Your task to perform on an android device: turn off picture-in-picture Image 0: 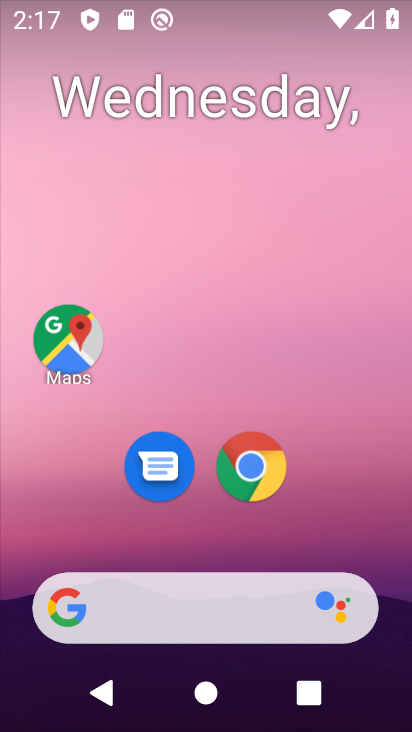
Step 0: drag from (404, 421) to (352, 16)
Your task to perform on an android device: turn off picture-in-picture Image 1: 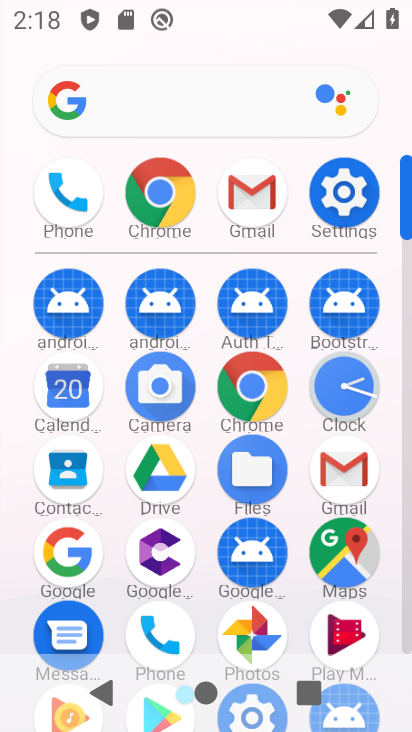
Step 1: drag from (6, 513) to (8, 119)
Your task to perform on an android device: turn off picture-in-picture Image 2: 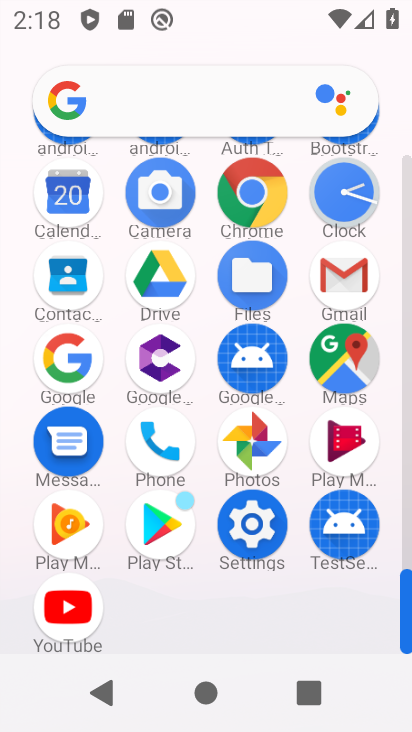
Step 2: click (248, 519)
Your task to perform on an android device: turn off picture-in-picture Image 3: 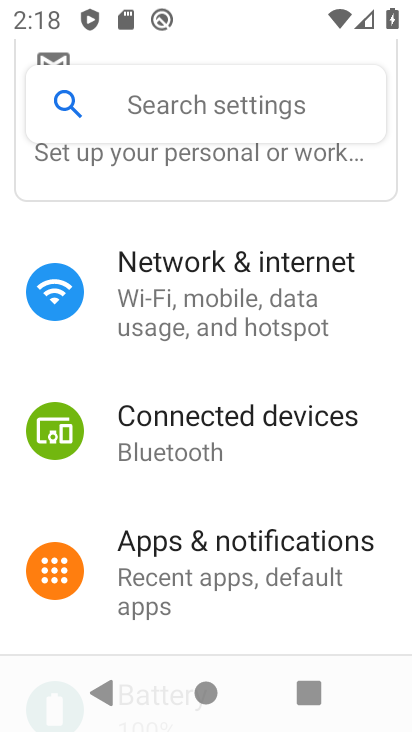
Step 3: click (258, 561)
Your task to perform on an android device: turn off picture-in-picture Image 4: 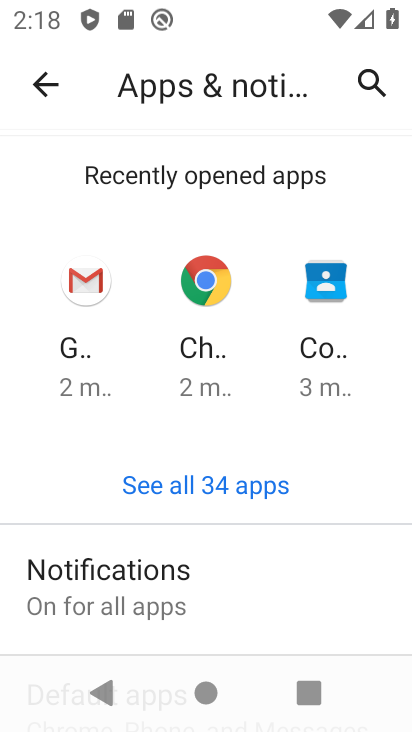
Step 4: drag from (395, 549) to (381, 70)
Your task to perform on an android device: turn off picture-in-picture Image 5: 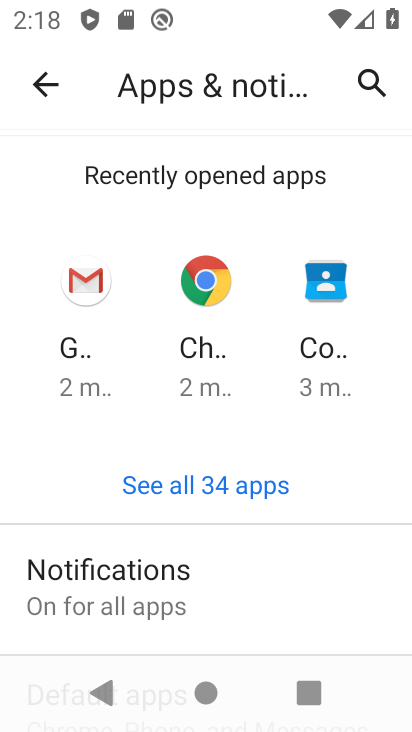
Step 5: drag from (384, 473) to (363, 110)
Your task to perform on an android device: turn off picture-in-picture Image 6: 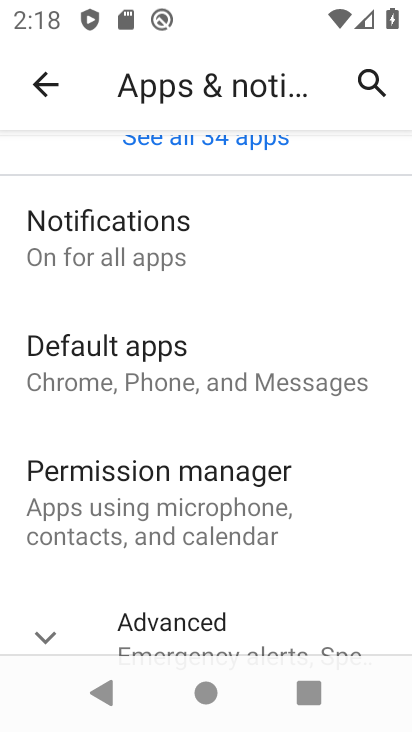
Step 6: click (48, 634)
Your task to perform on an android device: turn off picture-in-picture Image 7: 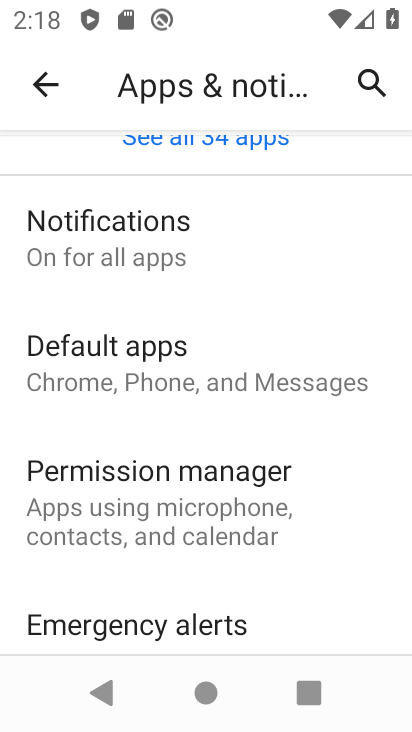
Step 7: drag from (355, 533) to (319, 96)
Your task to perform on an android device: turn off picture-in-picture Image 8: 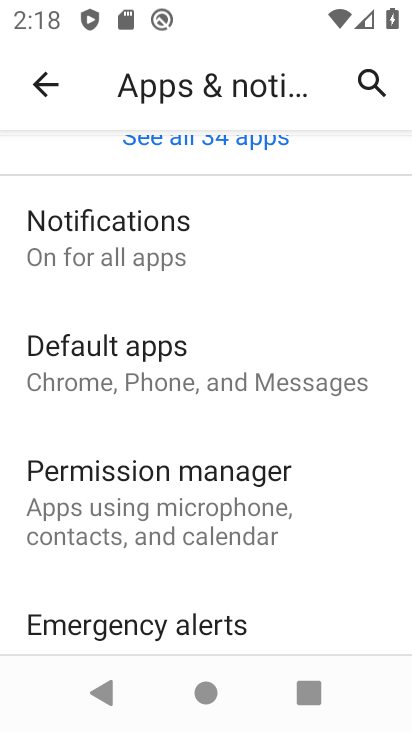
Step 8: drag from (378, 280) to (383, 46)
Your task to perform on an android device: turn off picture-in-picture Image 9: 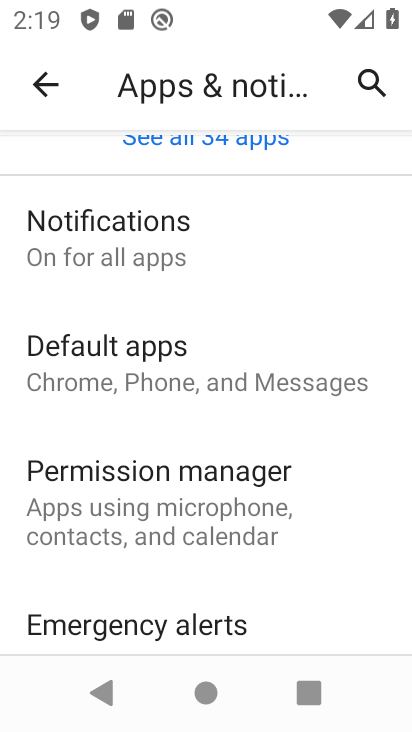
Step 9: drag from (342, 539) to (342, 182)
Your task to perform on an android device: turn off picture-in-picture Image 10: 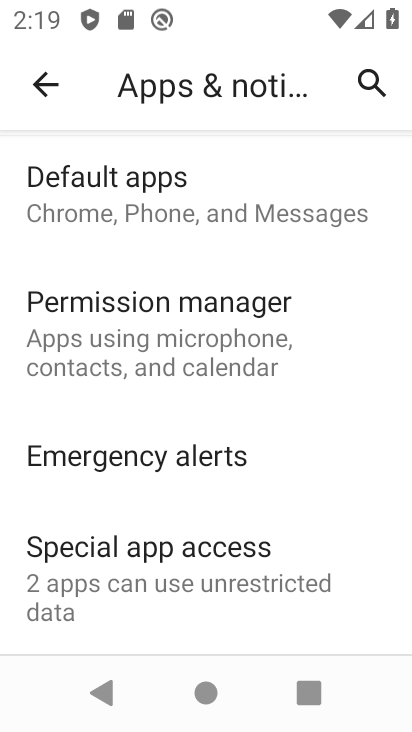
Step 10: click (241, 554)
Your task to perform on an android device: turn off picture-in-picture Image 11: 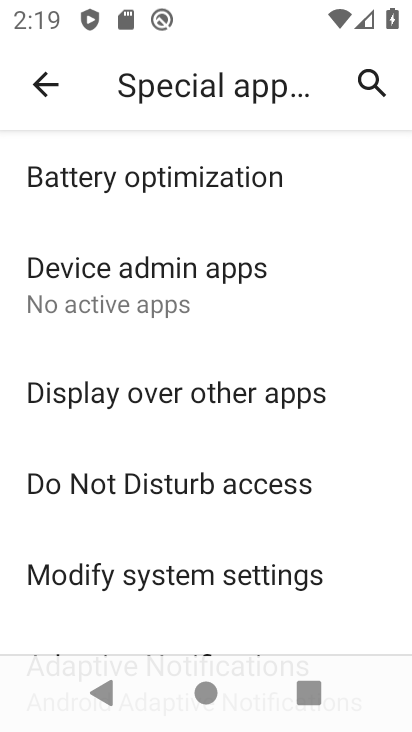
Step 11: drag from (266, 543) to (274, 229)
Your task to perform on an android device: turn off picture-in-picture Image 12: 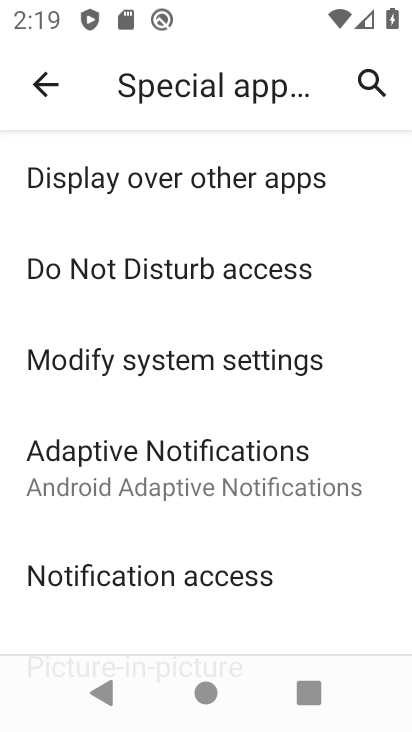
Step 12: drag from (270, 519) to (274, 181)
Your task to perform on an android device: turn off picture-in-picture Image 13: 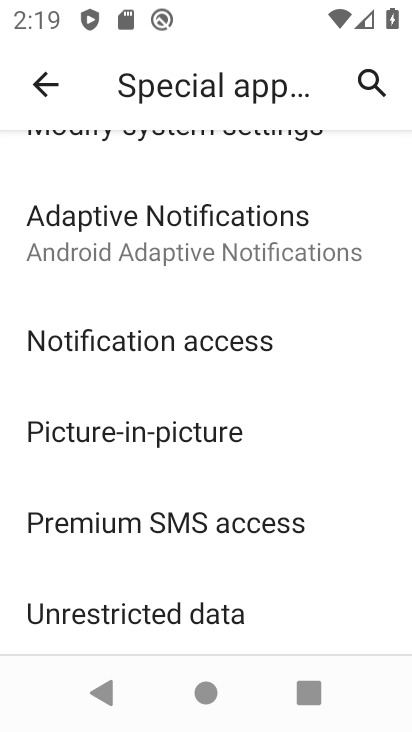
Step 13: click (187, 418)
Your task to perform on an android device: turn off picture-in-picture Image 14: 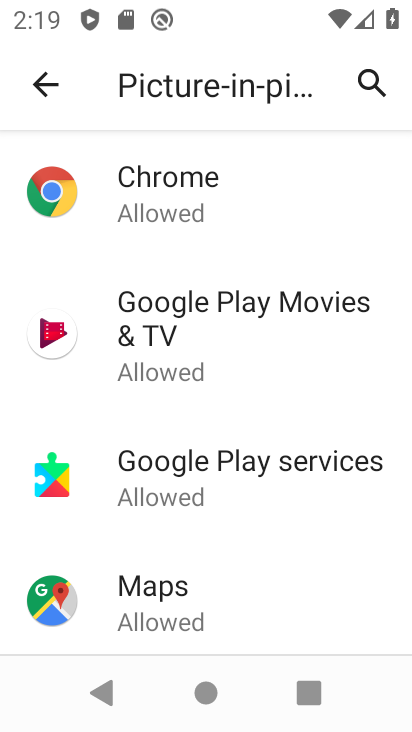
Step 14: click (205, 196)
Your task to perform on an android device: turn off picture-in-picture Image 15: 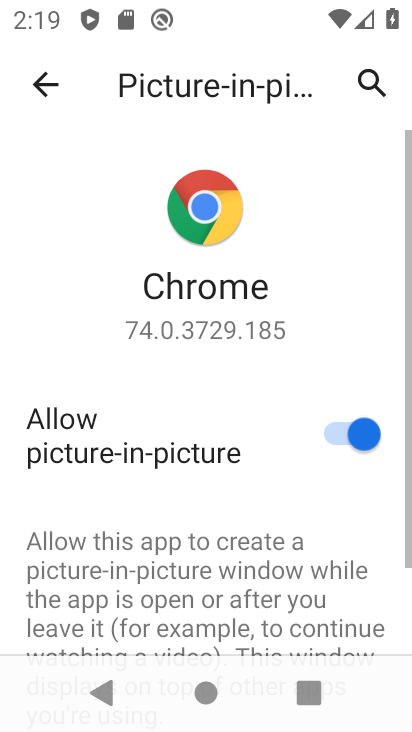
Step 15: click (334, 431)
Your task to perform on an android device: turn off picture-in-picture Image 16: 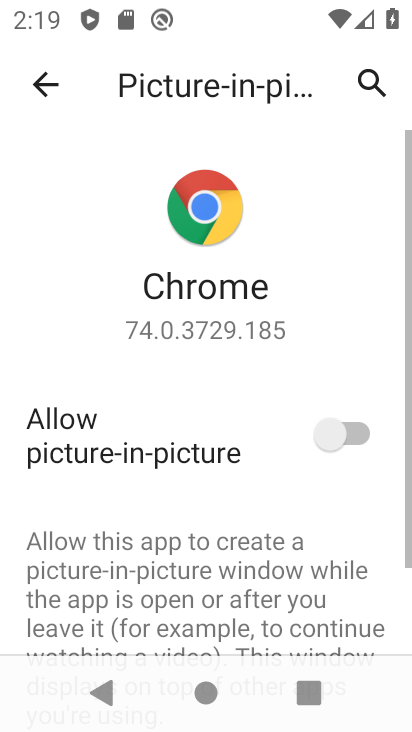
Step 16: click (26, 83)
Your task to perform on an android device: turn off picture-in-picture Image 17: 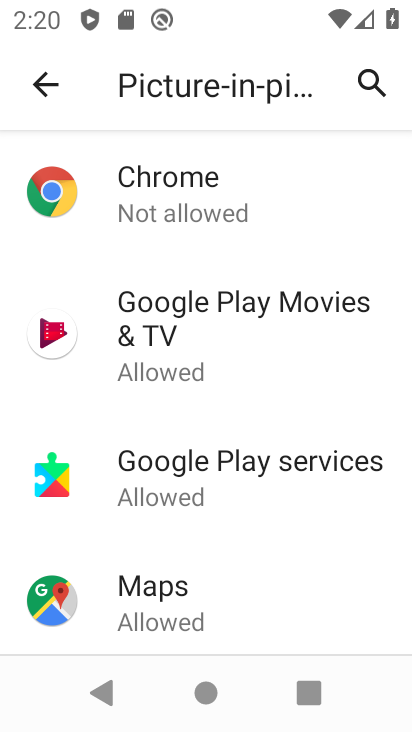
Step 17: drag from (242, 474) to (235, 242)
Your task to perform on an android device: turn off picture-in-picture Image 18: 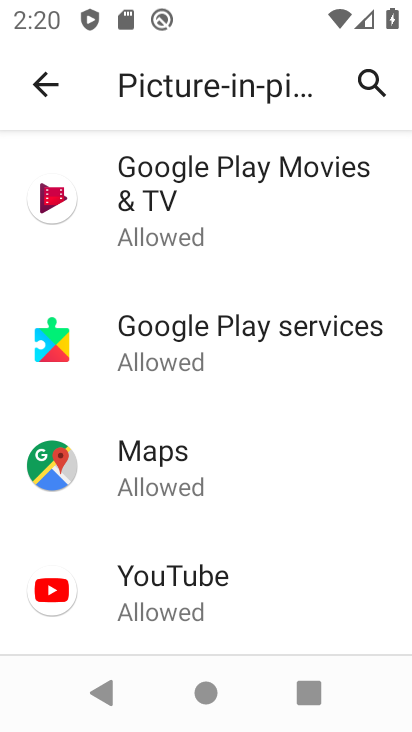
Step 18: click (221, 174)
Your task to perform on an android device: turn off picture-in-picture Image 19: 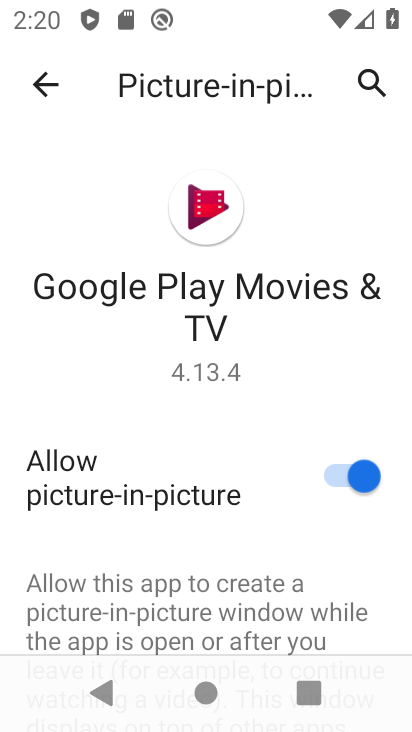
Step 19: click (337, 482)
Your task to perform on an android device: turn off picture-in-picture Image 20: 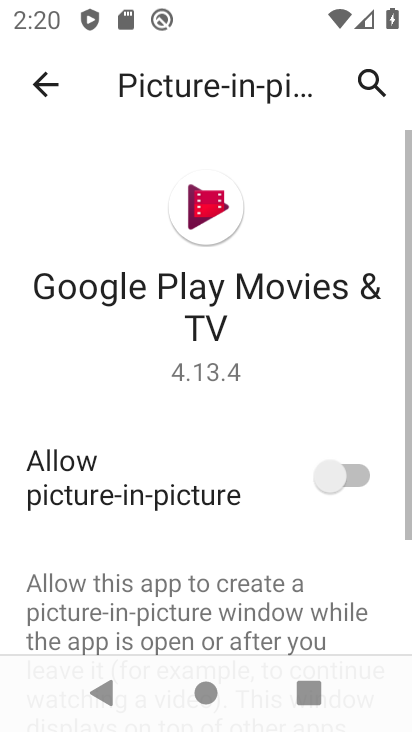
Step 20: click (60, 80)
Your task to perform on an android device: turn off picture-in-picture Image 21: 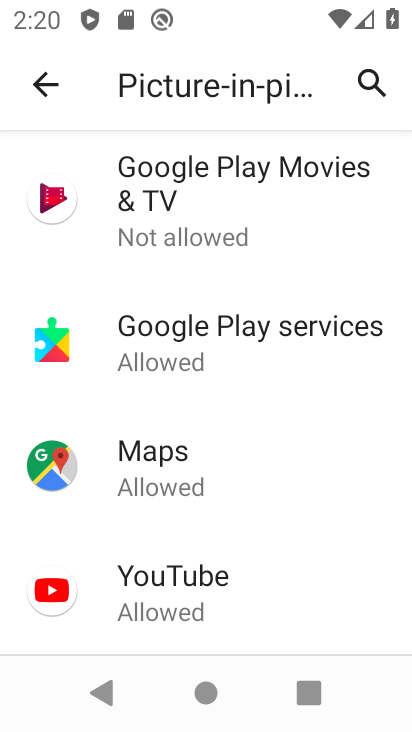
Step 21: click (231, 365)
Your task to perform on an android device: turn off picture-in-picture Image 22: 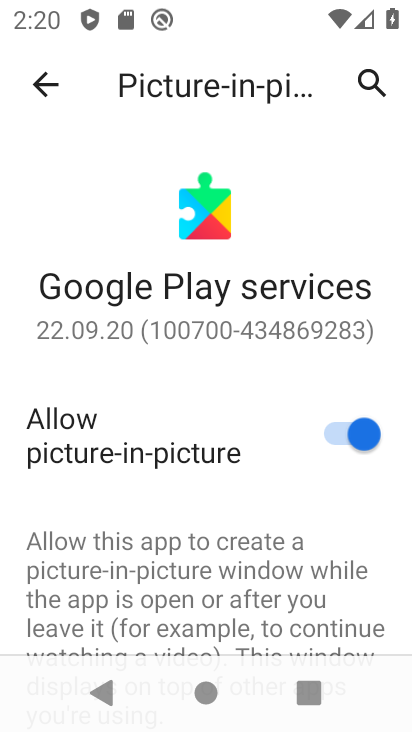
Step 22: click (339, 432)
Your task to perform on an android device: turn off picture-in-picture Image 23: 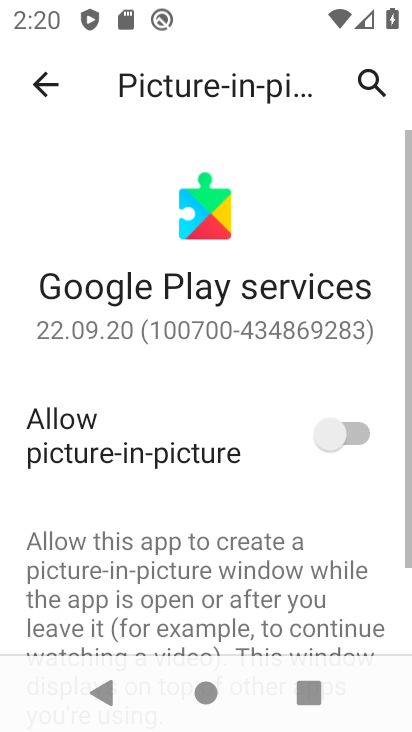
Step 23: click (56, 77)
Your task to perform on an android device: turn off picture-in-picture Image 24: 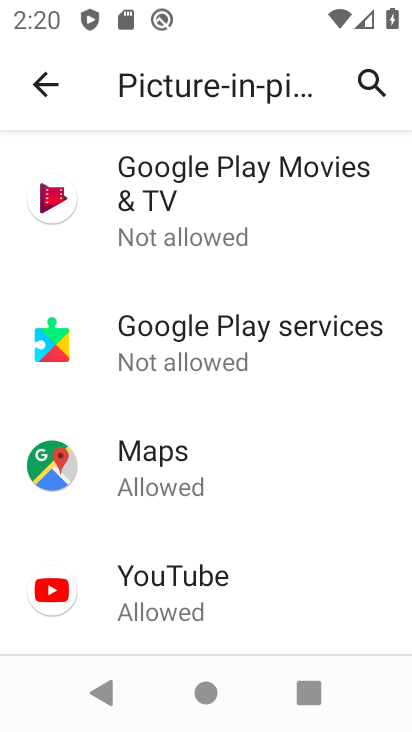
Step 24: click (202, 460)
Your task to perform on an android device: turn off picture-in-picture Image 25: 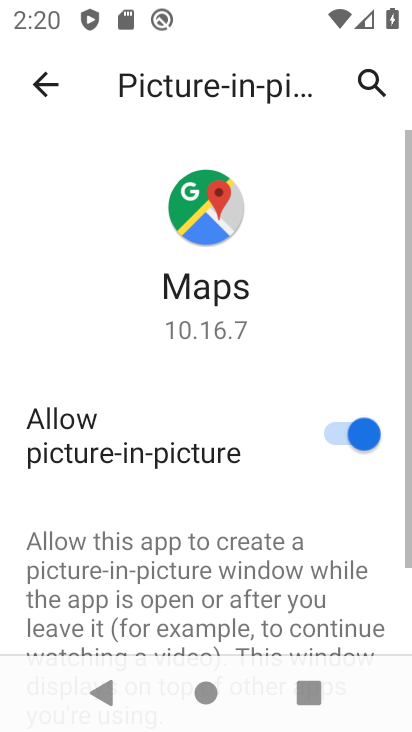
Step 25: click (369, 420)
Your task to perform on an android device: turn off picture-in-picture Image 26: 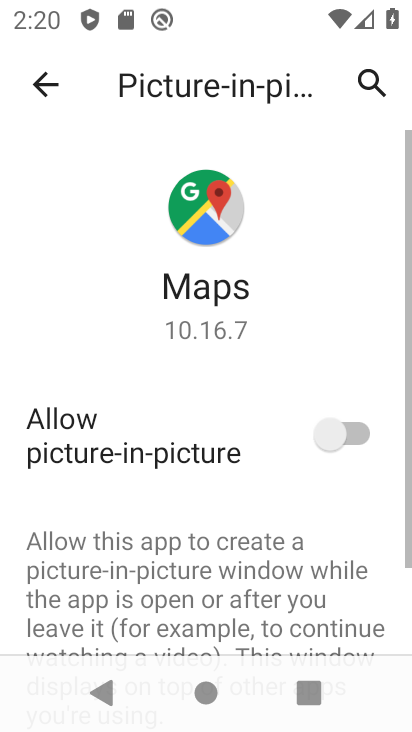
Step 26: click (53, 76)
Your task to perform on an android device: turn off picture-in-picture Image 27: 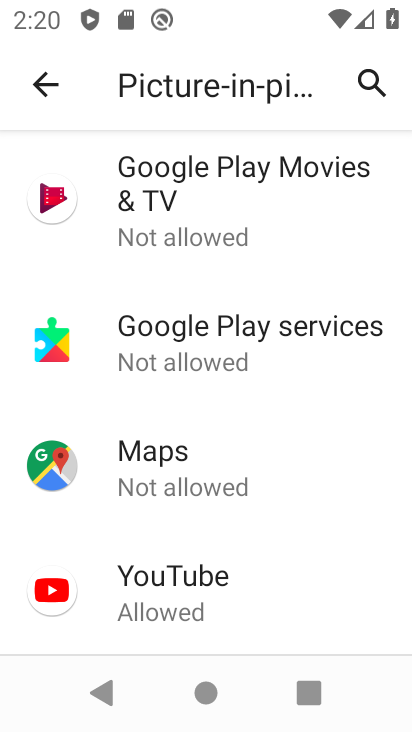
Step 27: click (215, 600)
Your task to perform on an android device: turn off picture-in-picture Image 28: 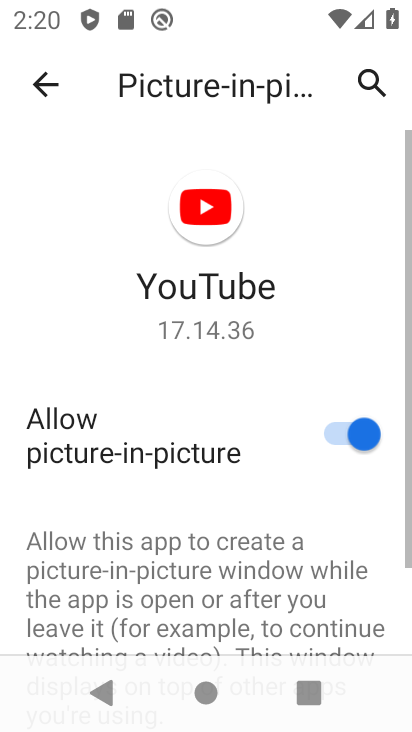
Step 28: click (332, 423)
Your task to perform on an android device: turn off picture-in-picture Image 29: 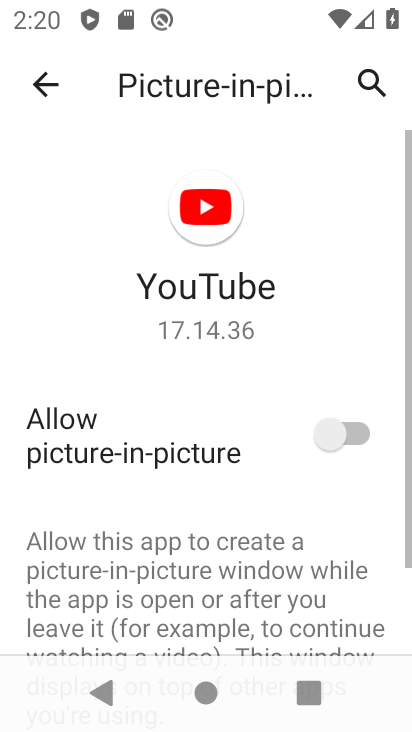
Step 29: click (59, 80)
Your task to perform on an android device: turn off picture-in-picture Image 30: 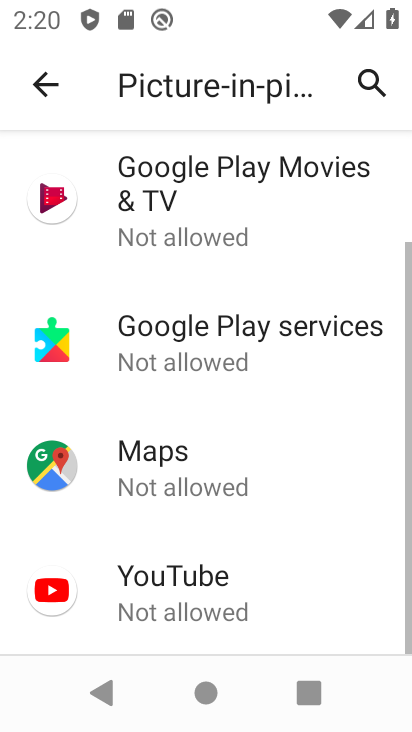
Step 30: task complete